Your task to perform on an android device: Open Yahoo.com Image 0: 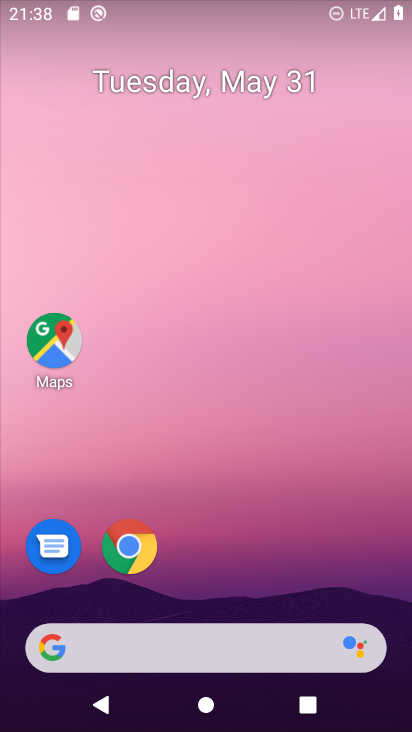
Step 0: click (118, 537)
Your task to perform on an android device: Open Yahoo.com Image 1: 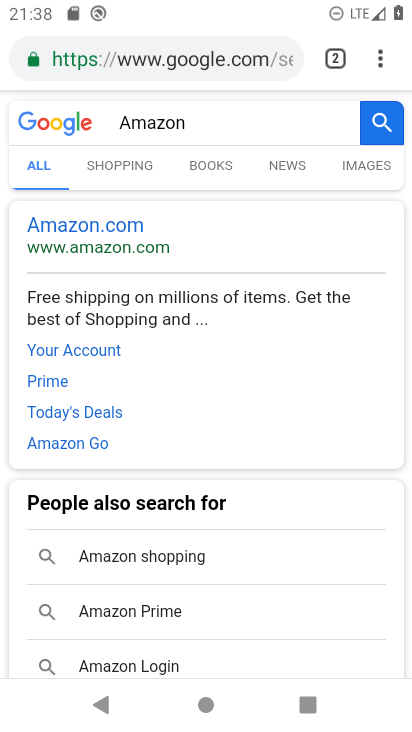
Step 1: click (292, 55)
Your task to perform on an android device: Open Yahoo.com Image 2: 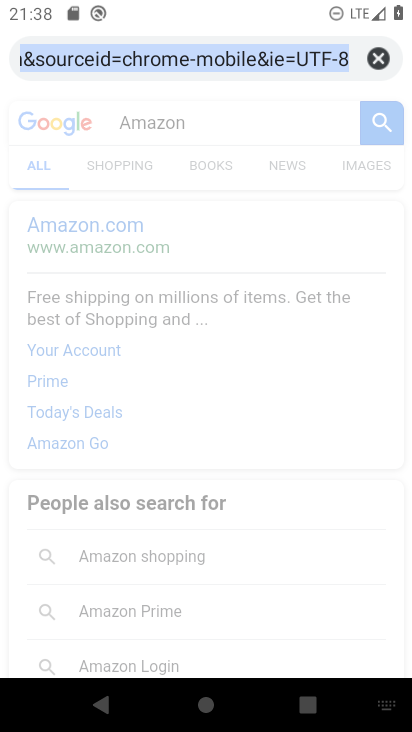
Step 2: click (373, 49)
Your task to perform on an android device: Open Yahoo.com Image 3: 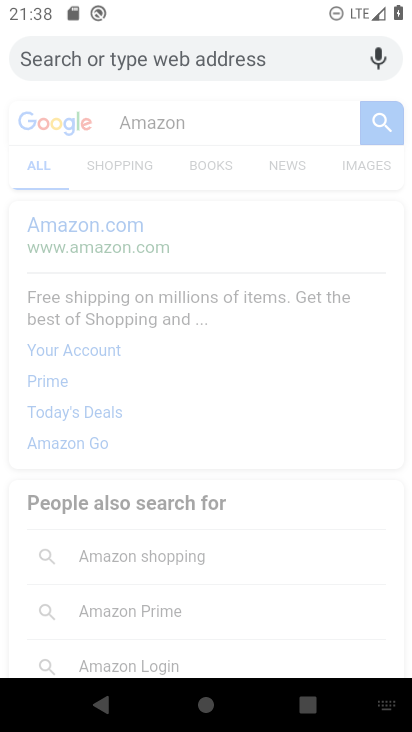
Step 3: type "Yahoo.com"
Your task to perform on an android device: Open Yahoo.com Image 4: 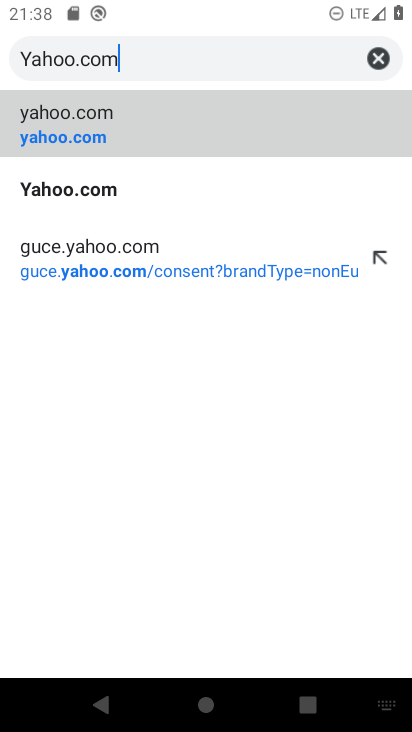
Step 4: click (63, 186)
Your task to perform on an android device: Open Yahoo.com Image 5: 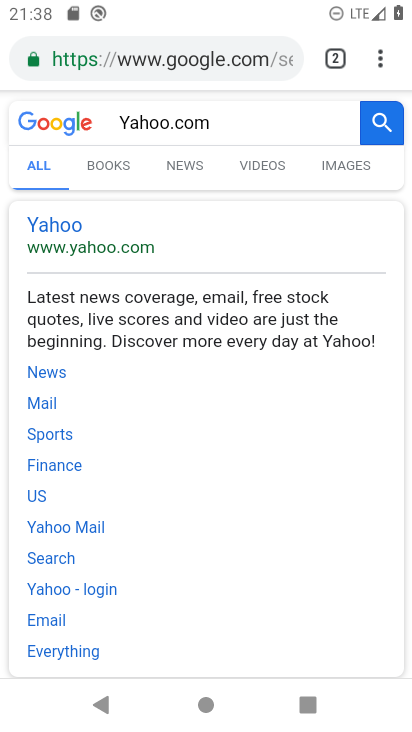
Step 5: task complete